Your task to perform on an android device: Search for Italian restaurants on Maps Image 0: 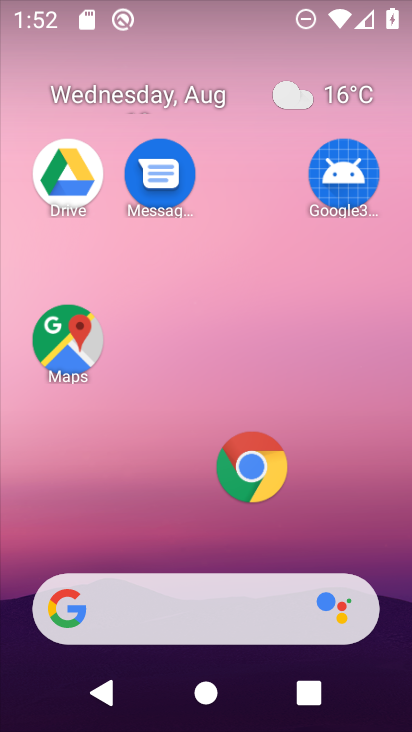
Step 0: click (39, 341)
Your task to perform on an android device: Search for Italian restaurants on Maps Image 1: 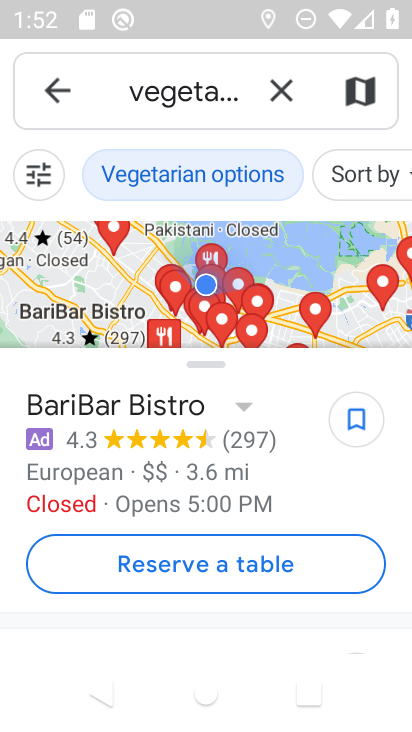
Step 1: click (287, 95)
Your task to perform on an android device: Search for Italian restaurants on Maps Image 2: 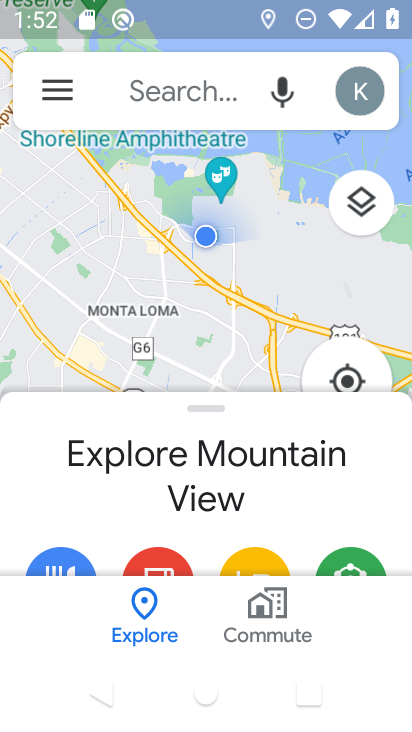
Step 2: click (176, 83)
Your task to perform on an android device: Search for Italian restaurants on Maps Image 3: 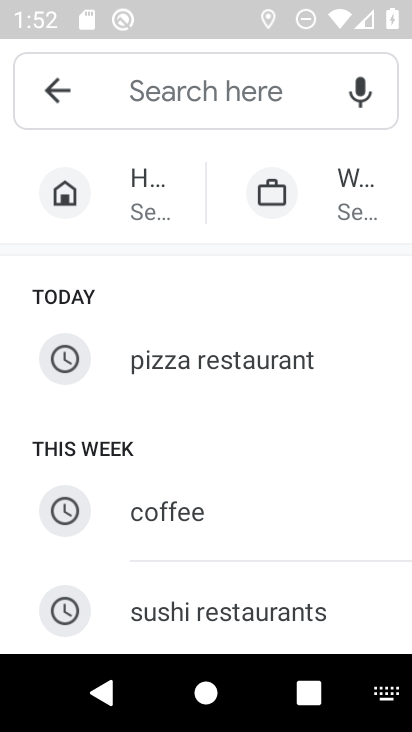
Step 3: click (164, 74)
Your task to perform on an android device: Search for Italian restaurants on Maps Image 4: 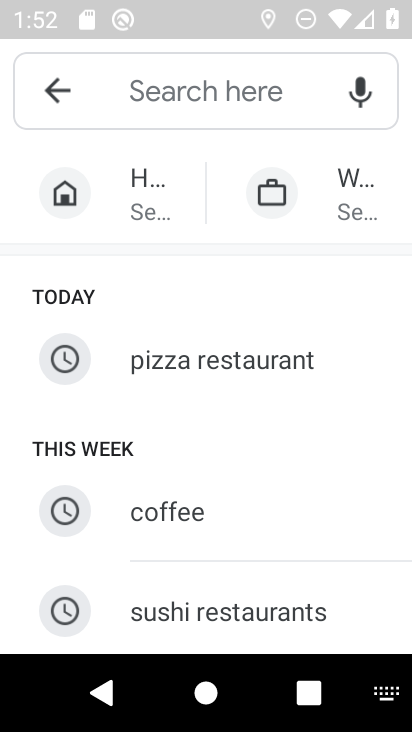
Step 4: type "italian restaurant"
Your task to perform on an android device: Search for Italian restaurants on Maps Image 5: 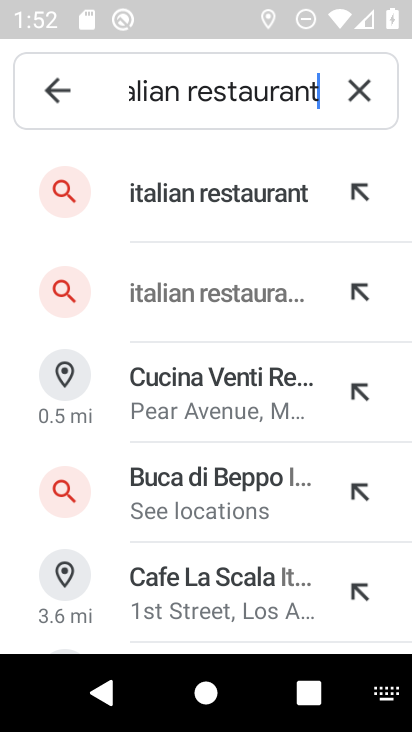
Step 5: click (210, 177)
Your task to perform on an android device: Search for Italian restaurants on Maps Image 6: 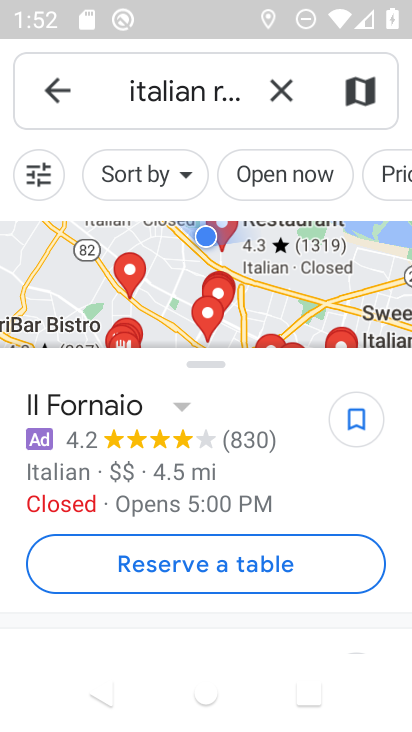
Step 6: task complete